Your task to perform on an android device: Open eBay Image 0: 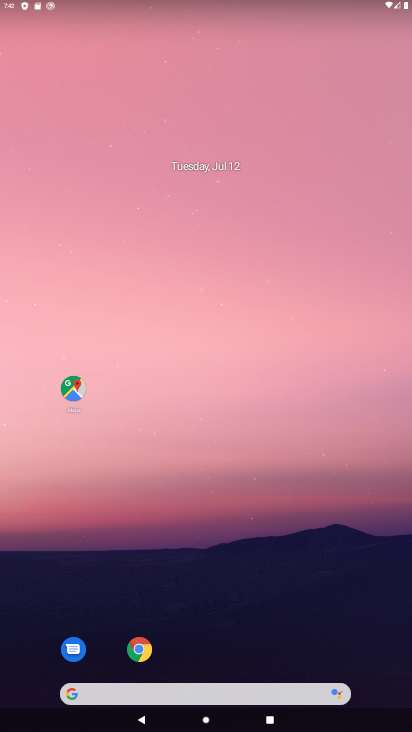
Step 0: drag from (267, 632) to (190, 62)
Your task to perform on an android device: Open eBay Image 1: 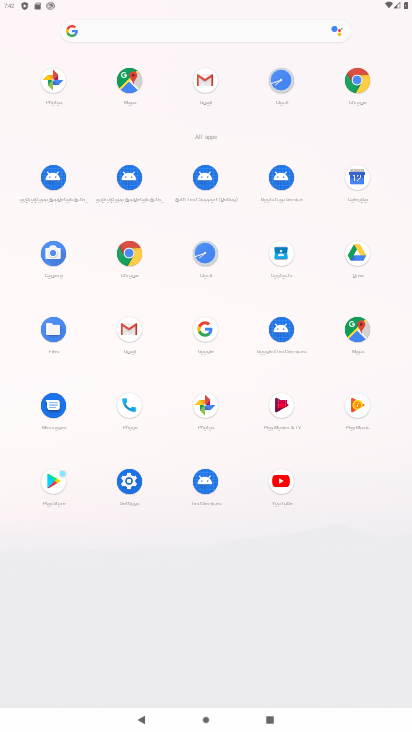
Step 1: click (360, 77)
Your task to perform on an android device: Open eBay Image 2: 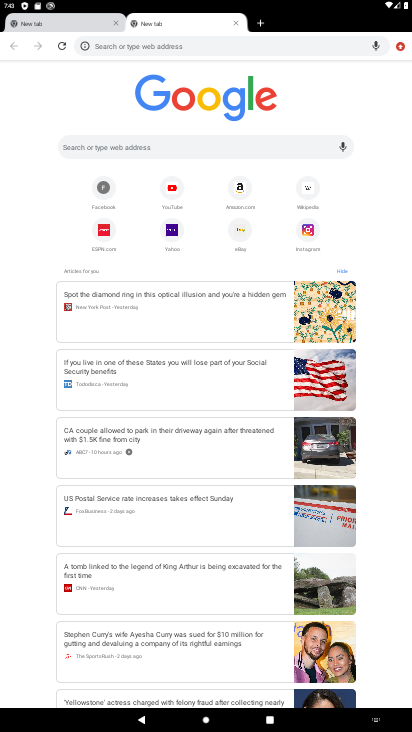
Step 2: click (246, 231)
Your task to perform on an android device: Open eBay Image 3: 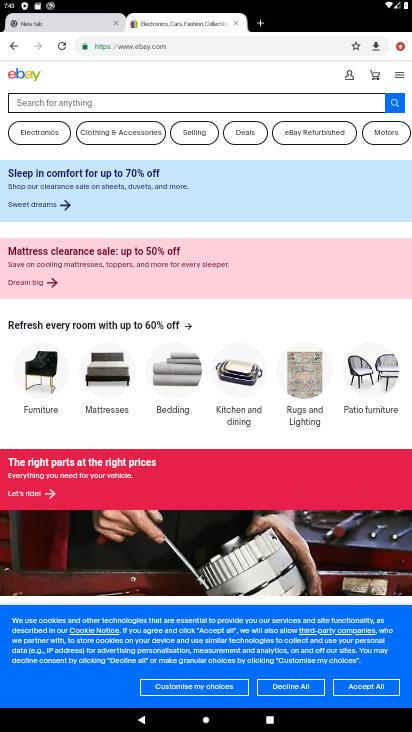
Step 3: task complete